Your task to perform on an android device: install app "Cash App" Image 0: 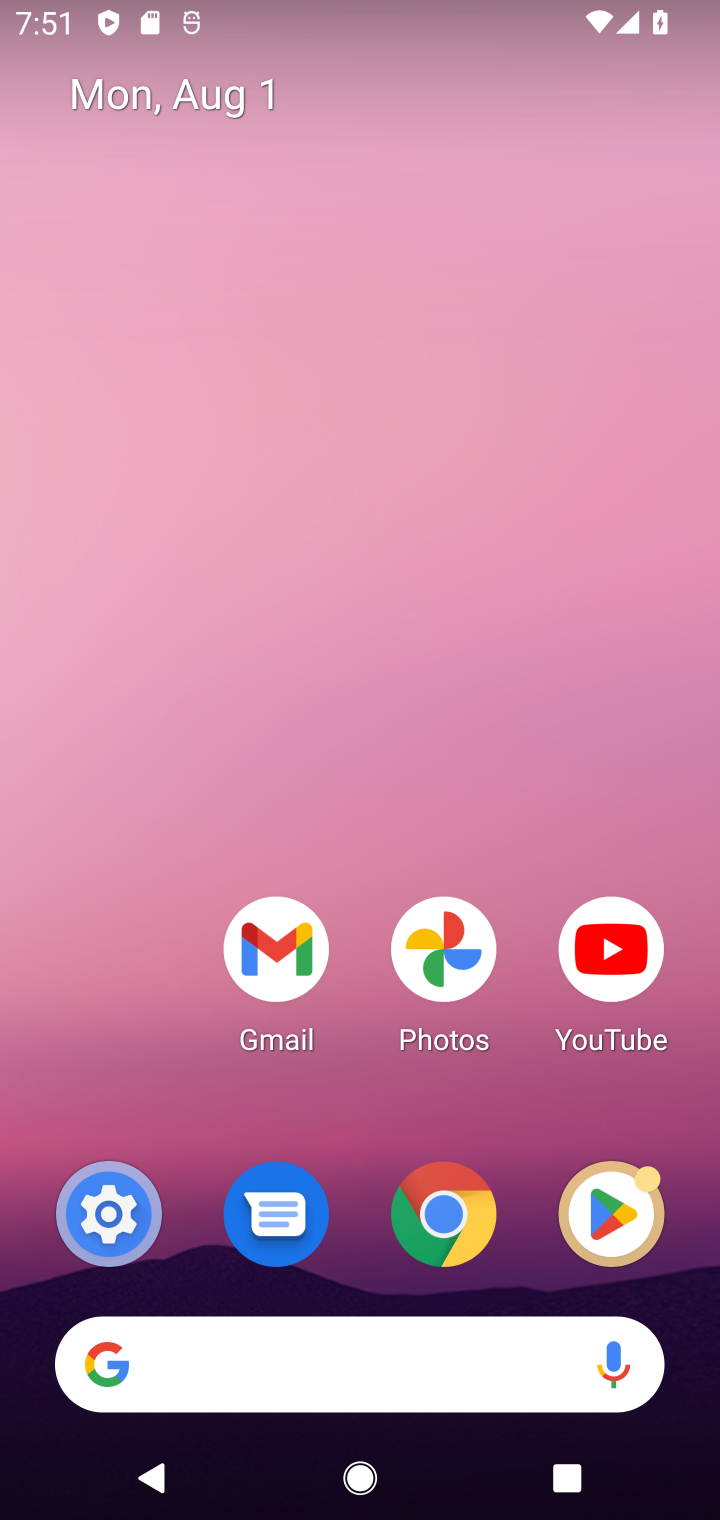
Step 0: click (589, 1197)
Your task to perform on an android device: install app "Cash App" Image 1: 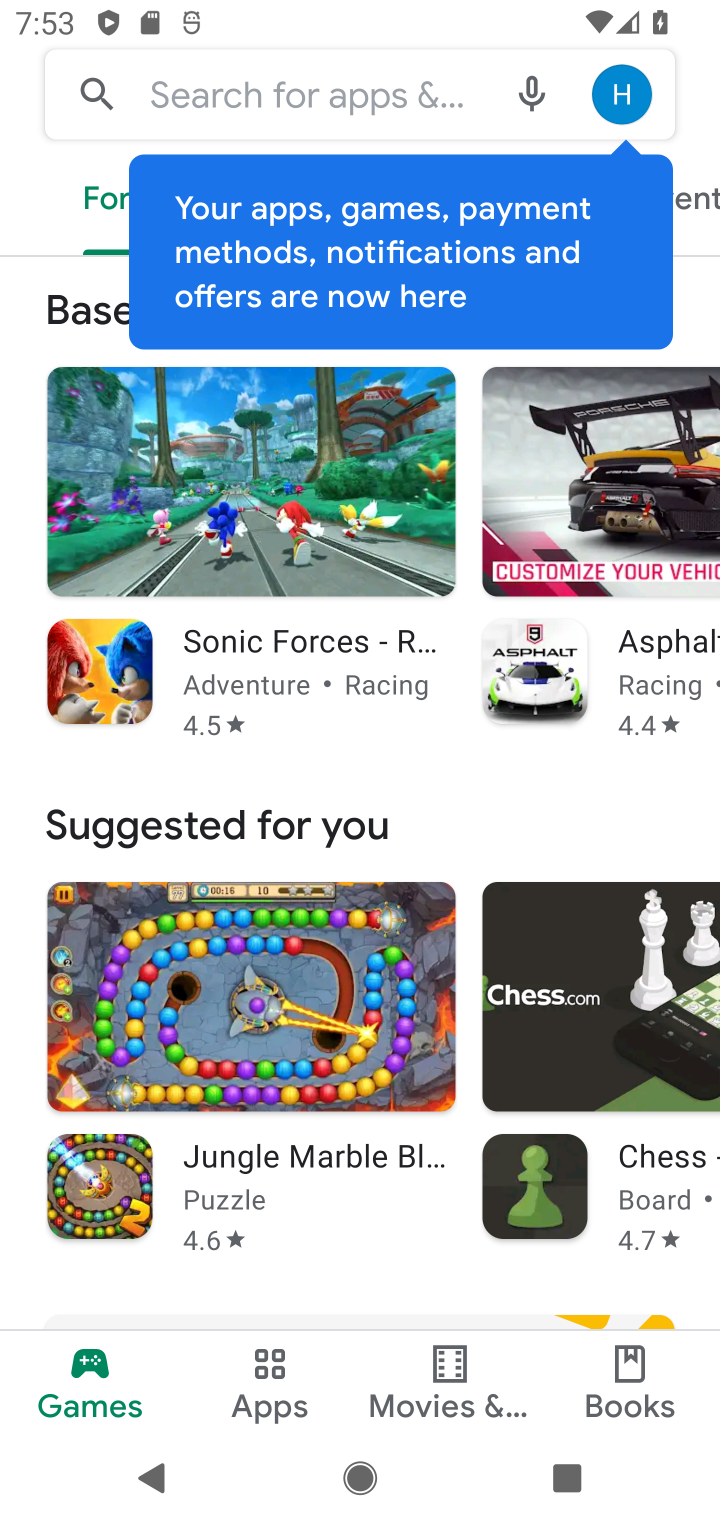
Step 1: click (362, 97)
Your task to perform on an android device: install app "Cash App" Image 2: 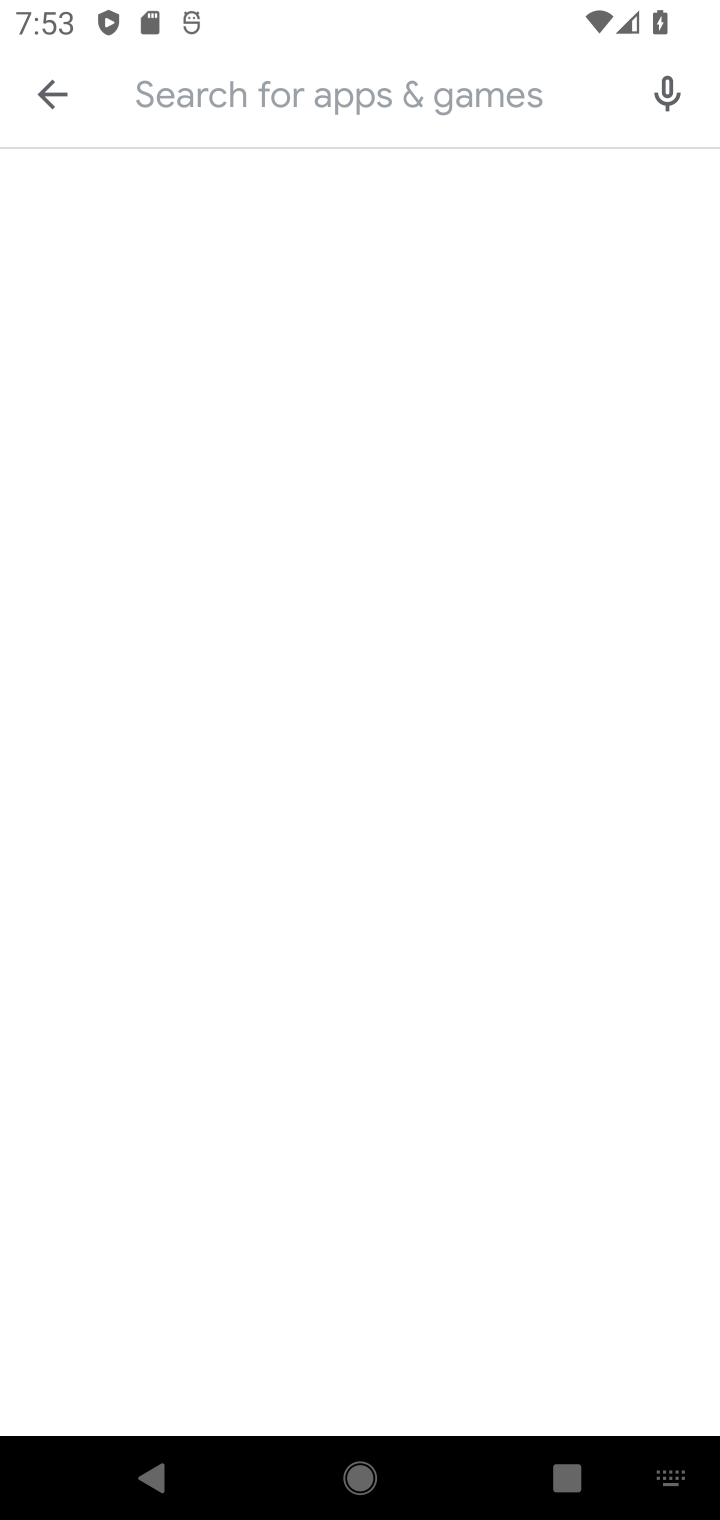
Step 2: type "cash "
Your task to perform on an android device: install app "Cash App" Image 3: 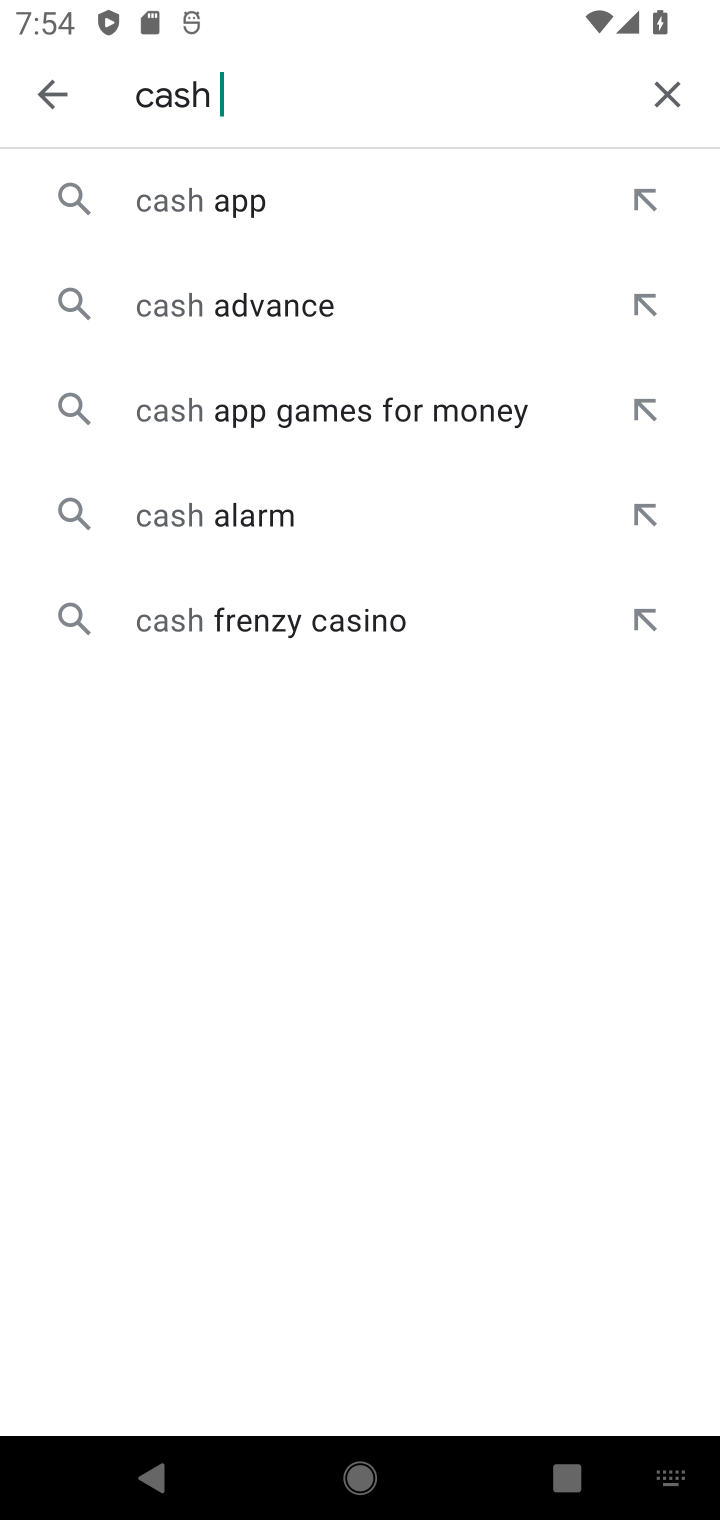
Step 3: click (134, 186)
Your task to perform on an android device: install app "Cash App" Image 4: 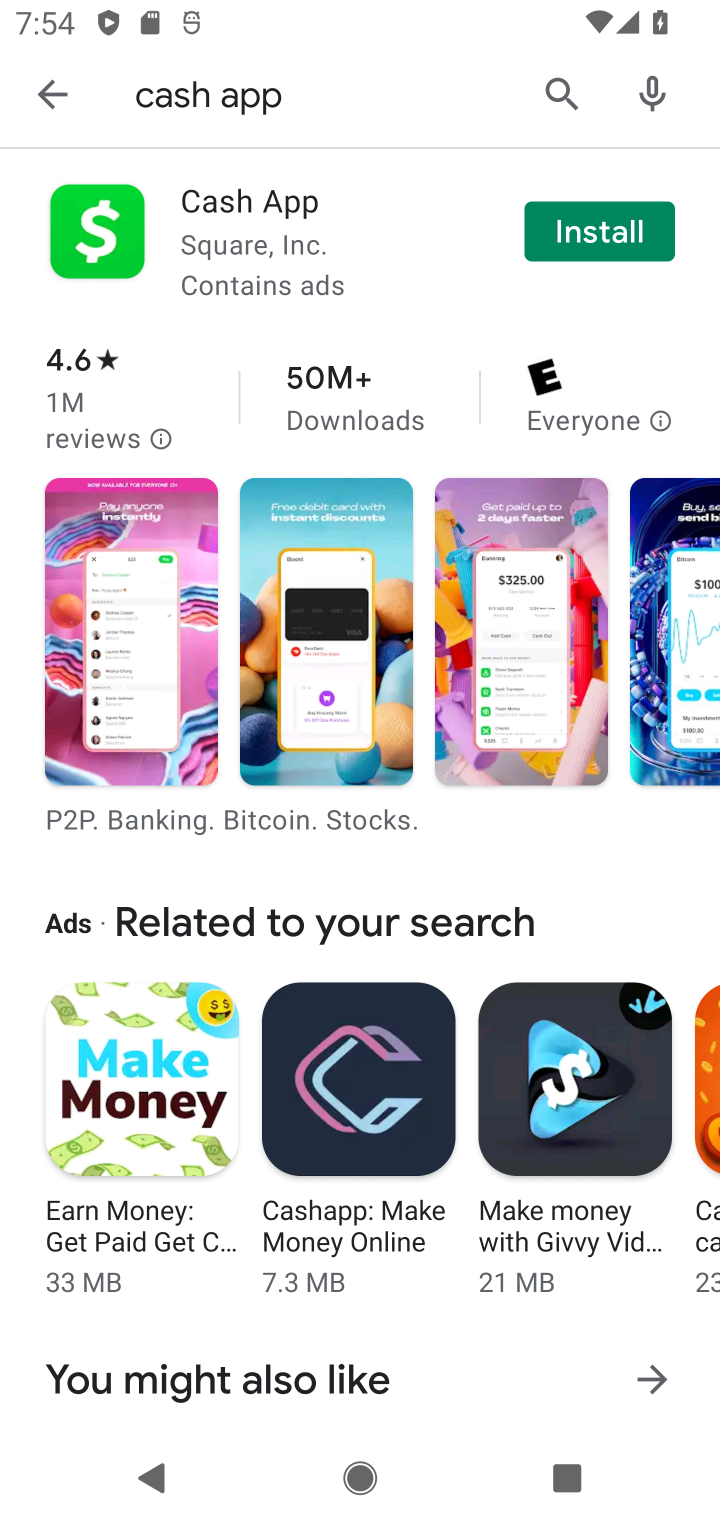
Step 4: click (635, 226)
Your task to perform on an android device: install app "Cash App" Image 5: 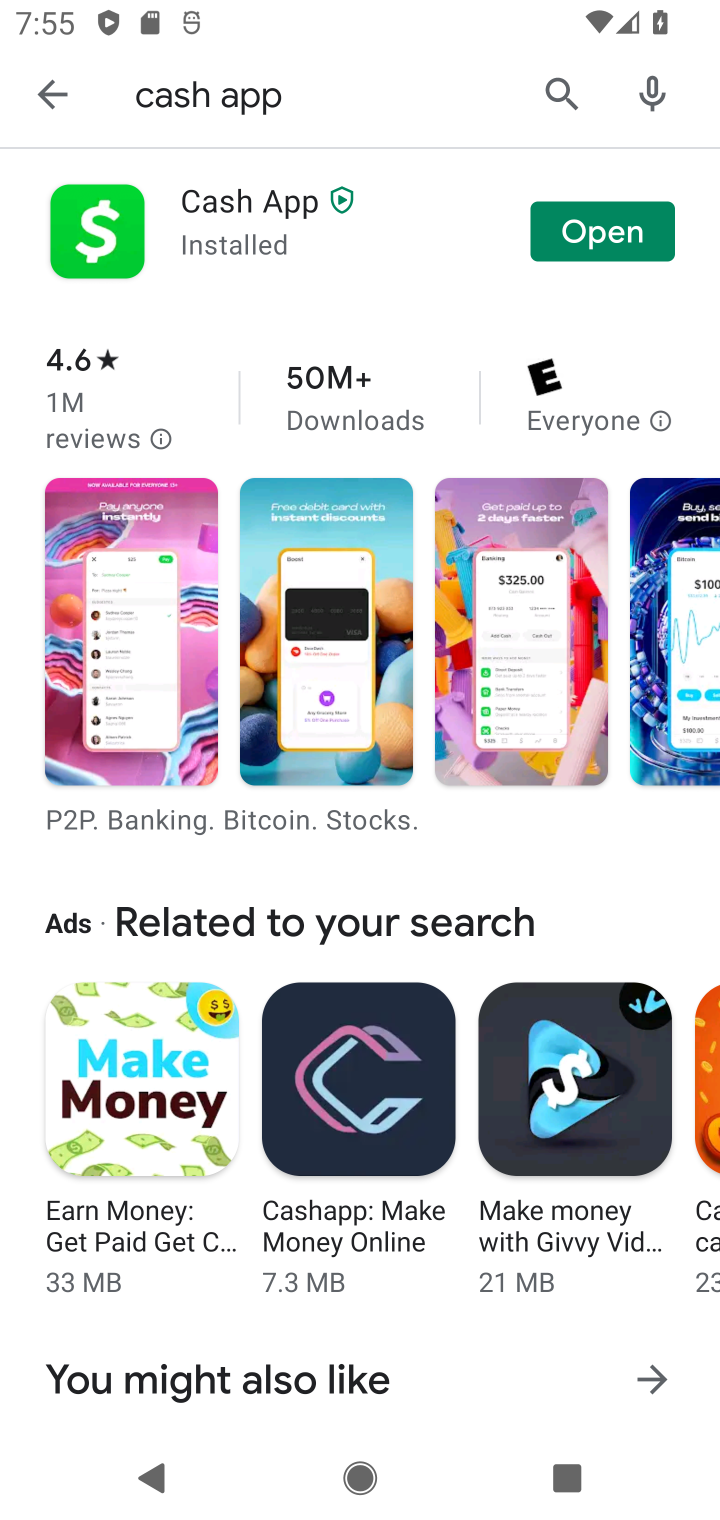
Step 5: task complete